Your task to perform on an android device: What is the news today? Image 0: 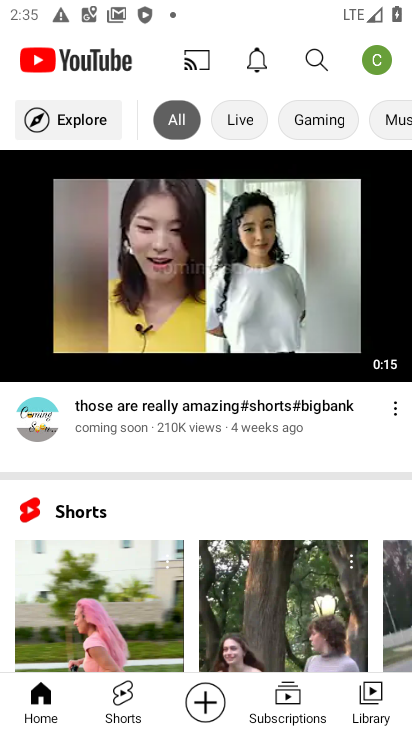
Step 0: press home button
Your task to perform on an android device: What is the news today? Image 1: 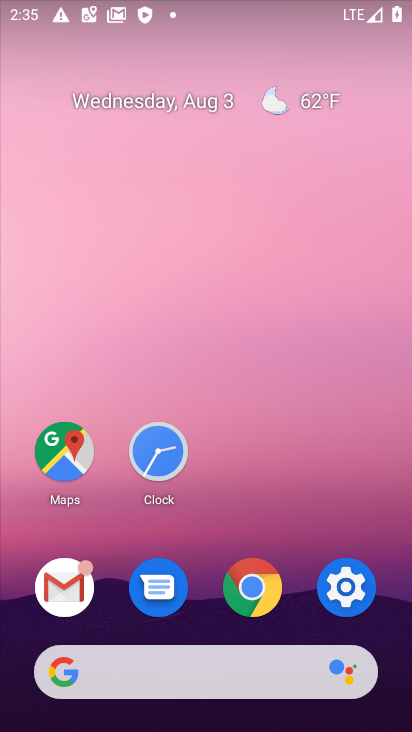
Step 1: task complete